Your task to perform on an android device: turn on showing notifications on the lock screen Image 0: 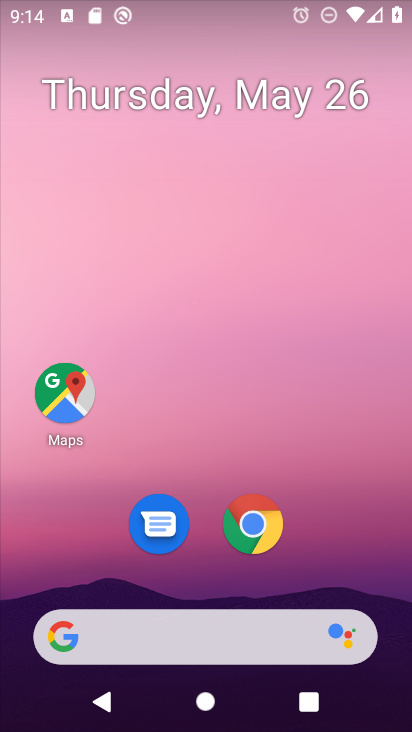
Step 0: drag from (268, 453) to (256, 24)
Your task to perform on an android device: turn on showing notifications on the lock screen Image 1: 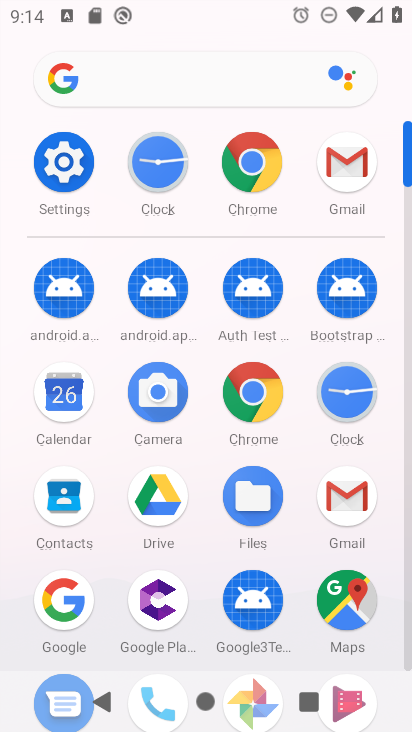
Step 1: click (73, 161)
Your task to perform on an android device: turn on showing notifications on the lock screen Image 2: 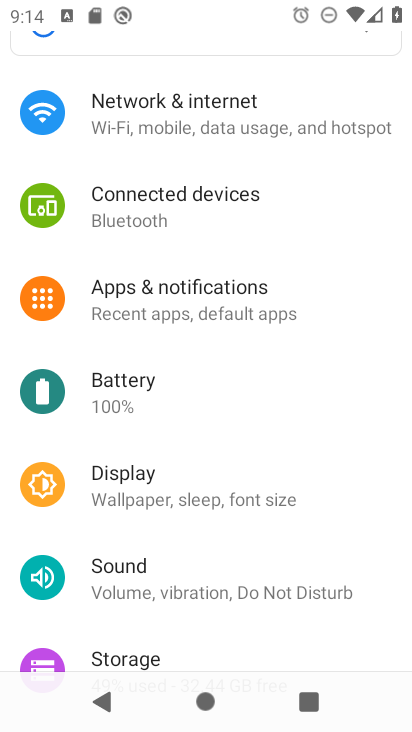
Step 2: click (236, 289)
Your task to perform on an android device: turn on showing notifications on the lock screen Image 3: 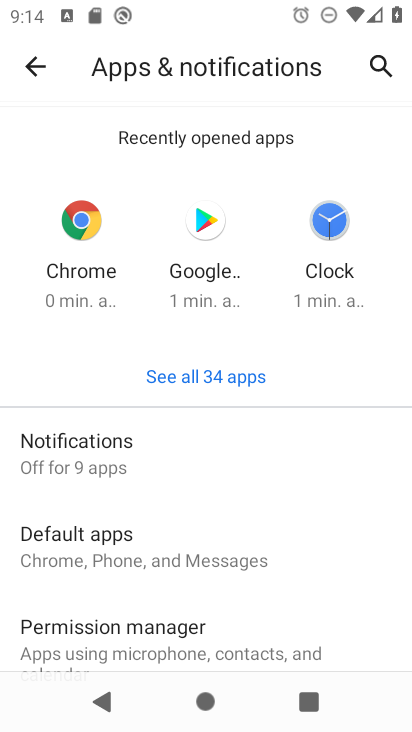
Step 3: click (194, 442)
Your task to perform on an android device: turn on showing notifications on the lock screen Image 4: 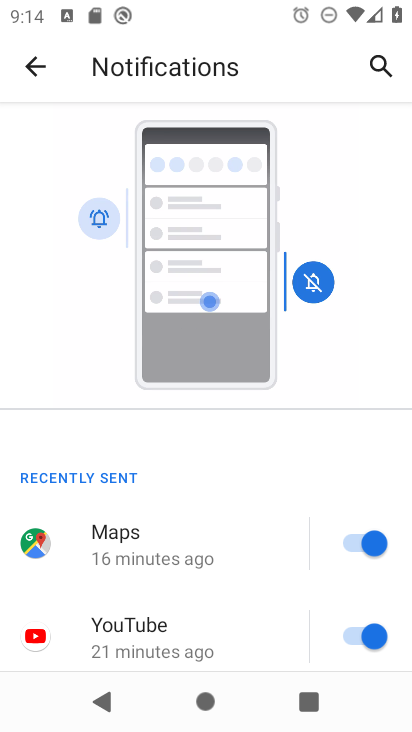
Step 4: task complete